Your task to perform on an android device: delete the emails in spam in the gmail app Image 0: 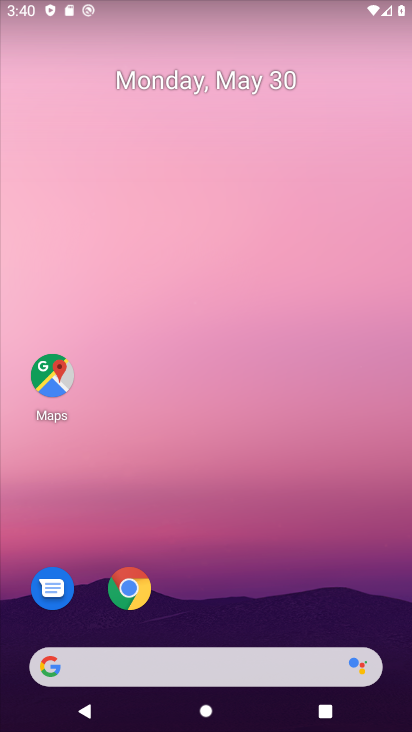
Step 0: drag from (223, 635) to (221, 271)
Your task to perform on an android device: delete the emails in spam in the gmail app Image 1: 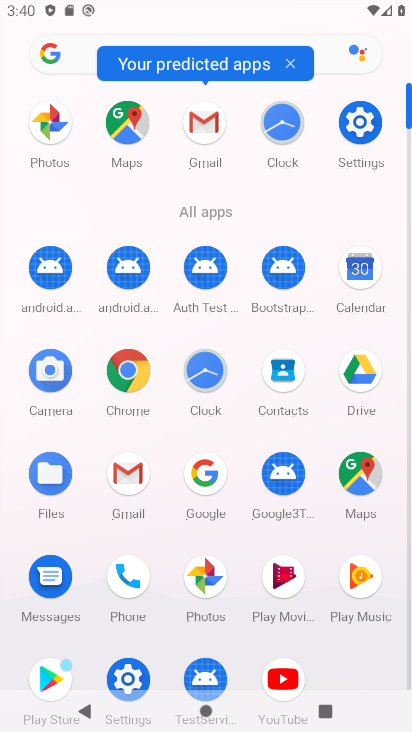
Step 1: click (194, 137)
Your task to perform on an android device: delete the emails in spam in the gmail app Image 2: 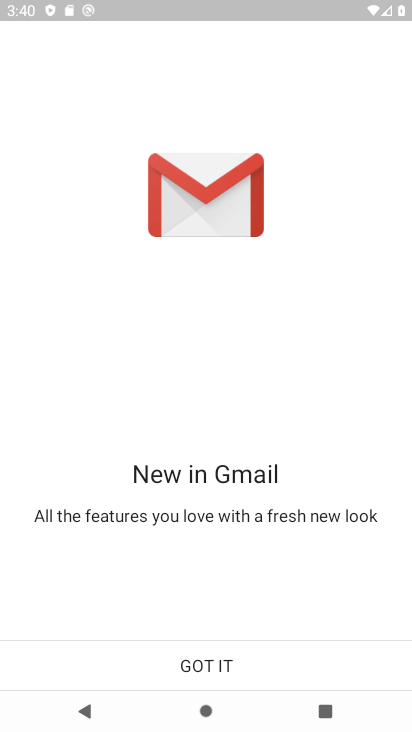
Step 2: click (188, 658)
Your task to perform on an android device: delete the emails in spam in the gmail app Image 3: 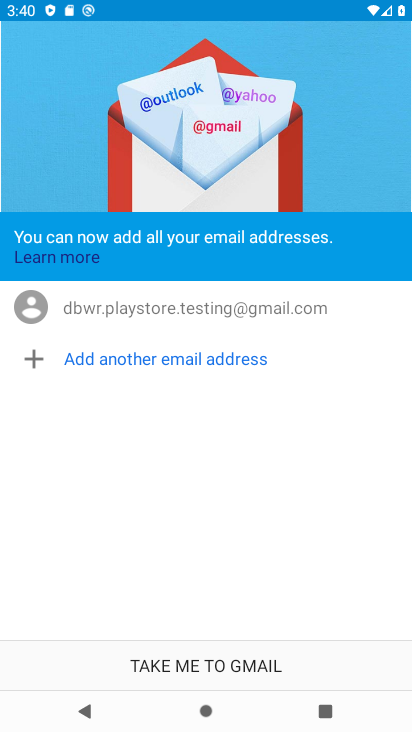
Step 3: click (182, 659)
Your task to perform on an android device: delete the emails in spam in the gmail app Image 4: 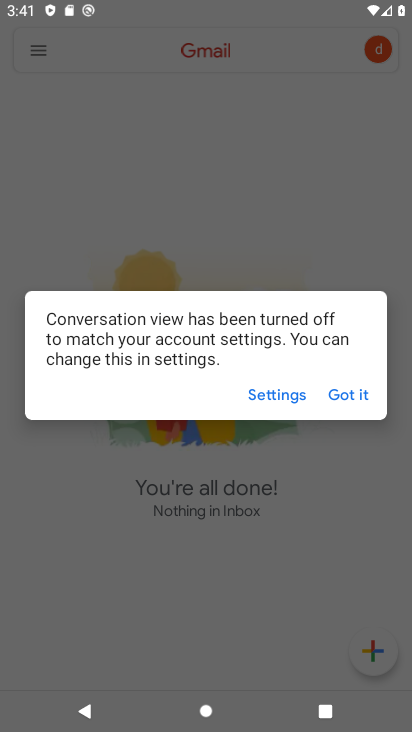
Step 4: click (359, 396)
Your task to perform on an android device: delete the emails in spam in the gmail app Image 5: 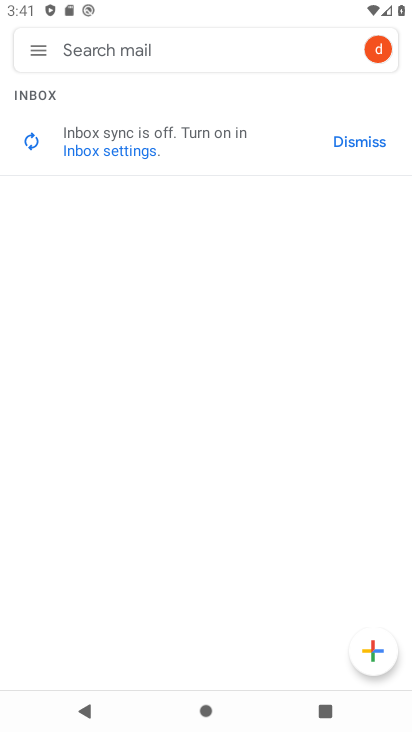
Step 5: click (43, 46)
Your task to perform on an android device: delete the emails in spam in the gmail app Image 6: 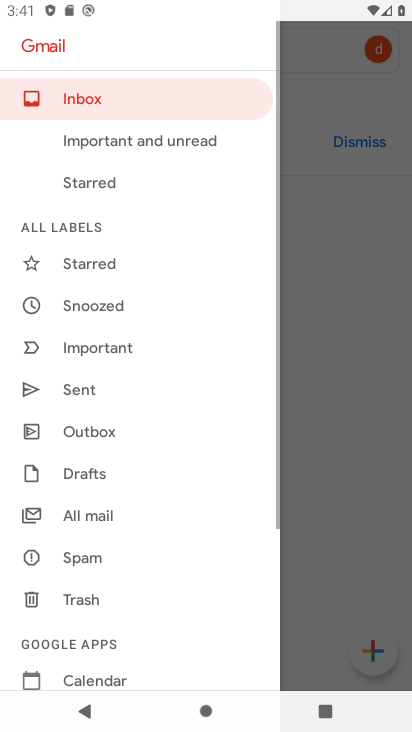
Step 6: click (70, 80)
Your task to perform on an android device: delete the emails in spam in the gmail app Image 7: 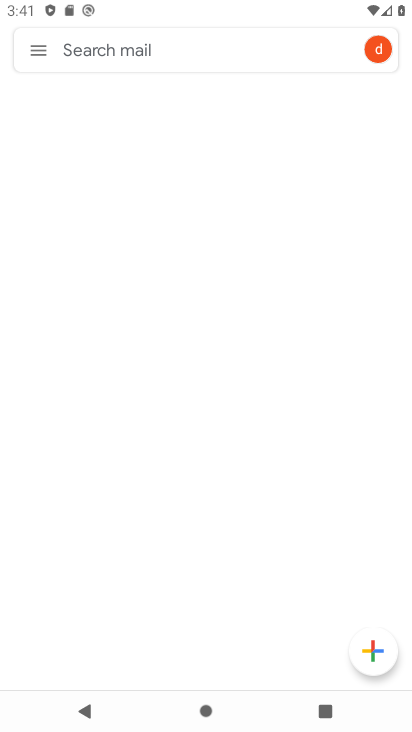
Step 7: task complete